Your task to perform on an android device: Go to sound settings Image 0: 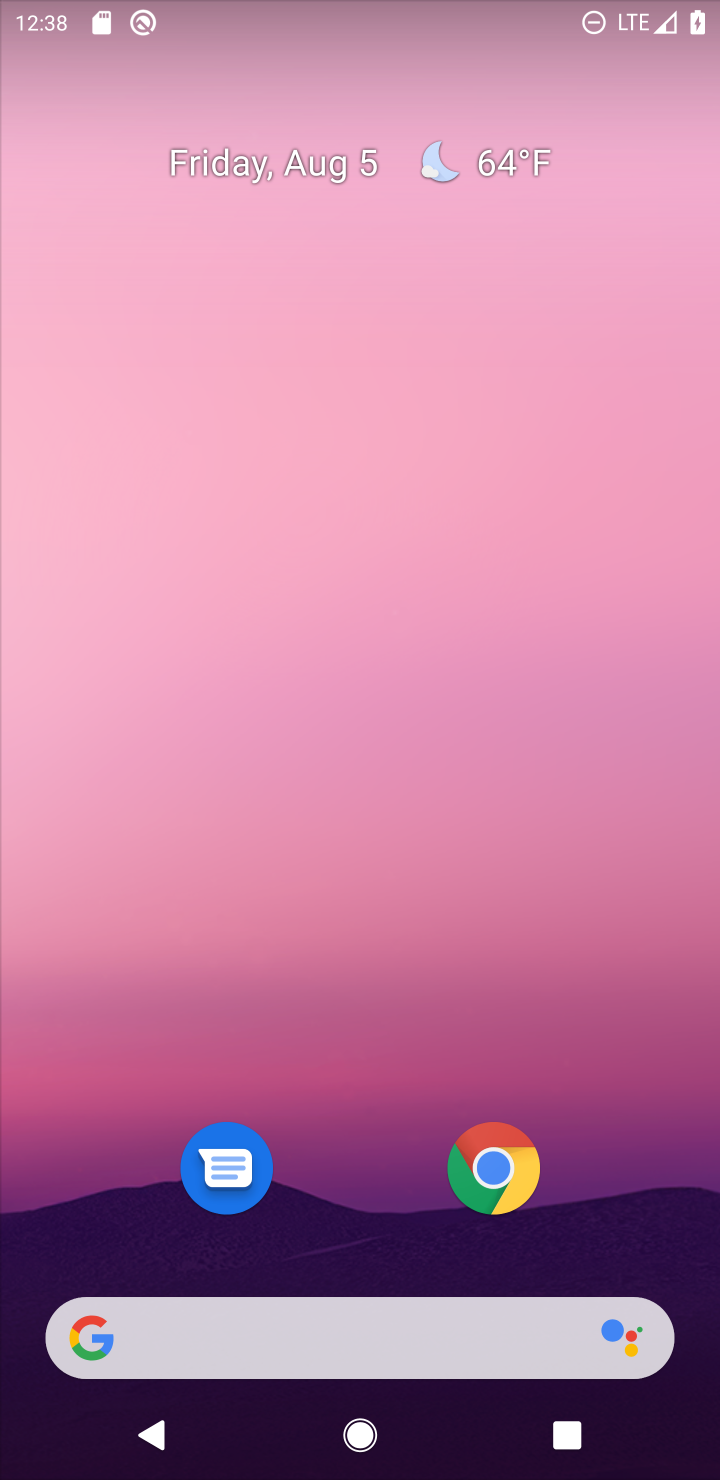
Step 0: drag from (645, 1111) to (334, 52)
Your task to perform on an android device: Go to sound settings Image 1: 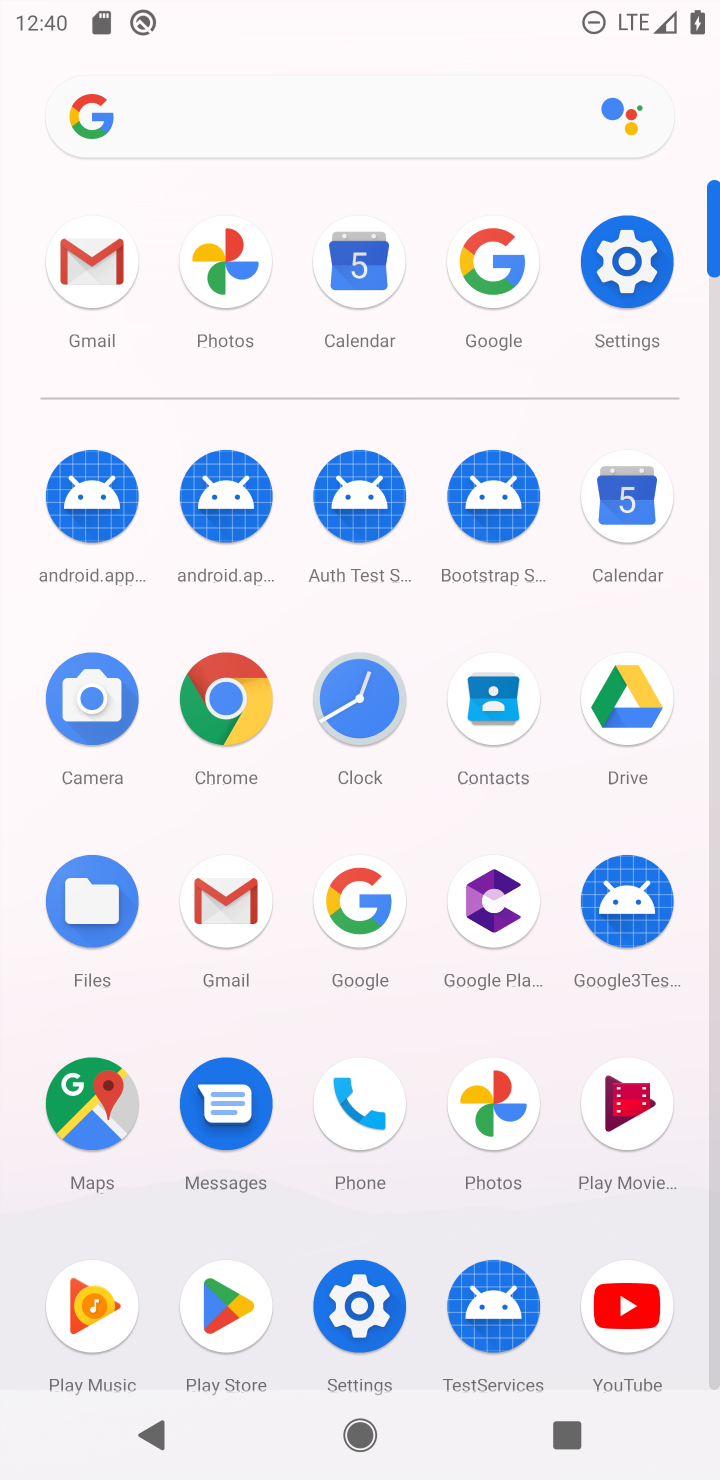
Step 1: click (350, 1302)
Your task to perform on an android device: Go to sound settings Image 2: 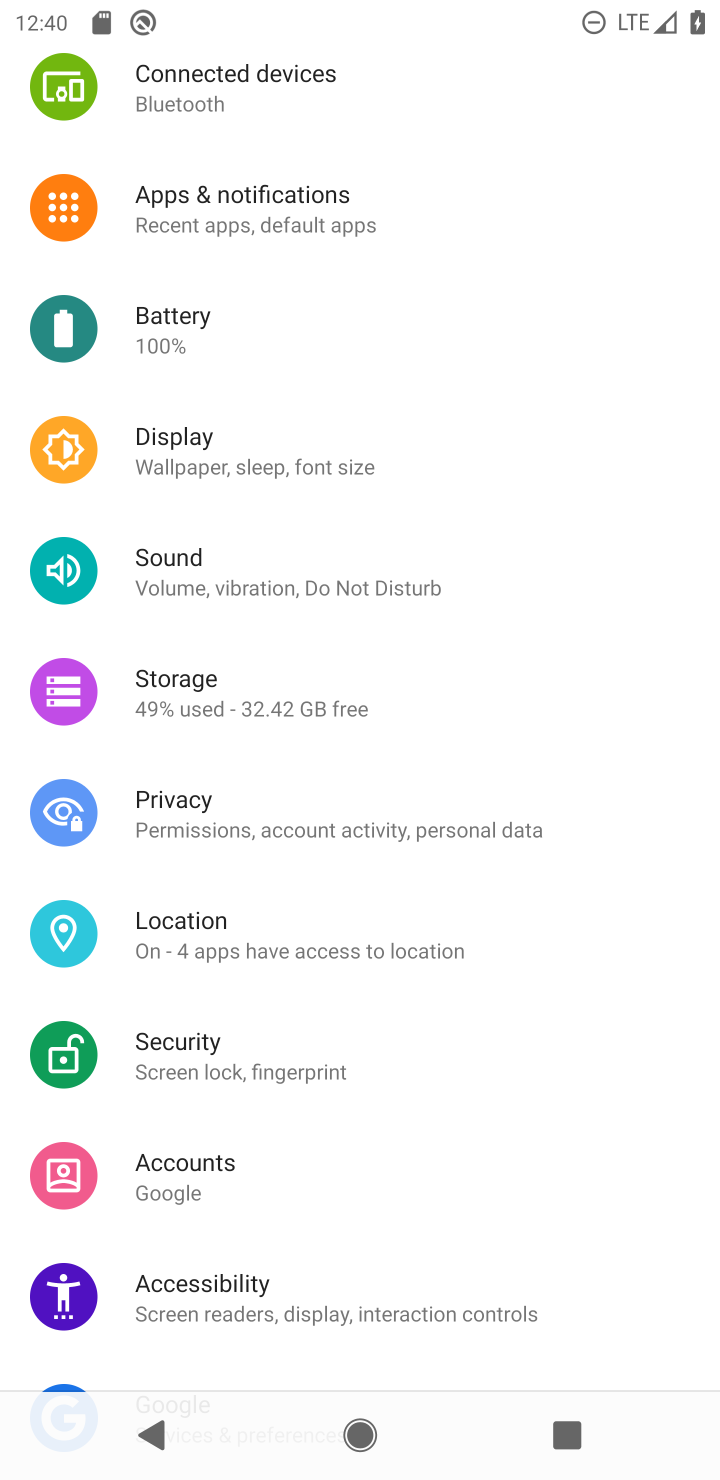
Step 2: click (171, 573)
Your task to perform on an android device: Go to sound settings Image 3: 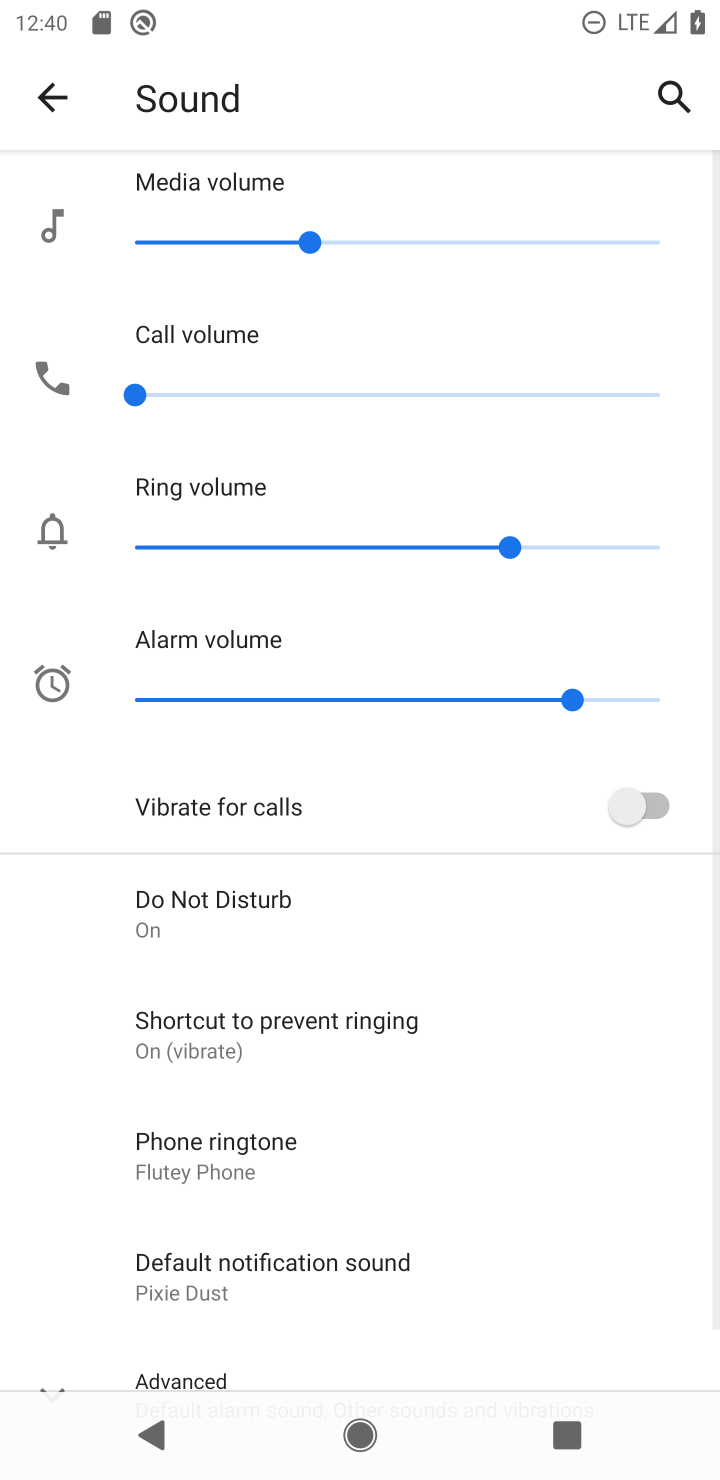
Step 3: task complete